Your task to perform on an android device: Go to sound settings Image 0: 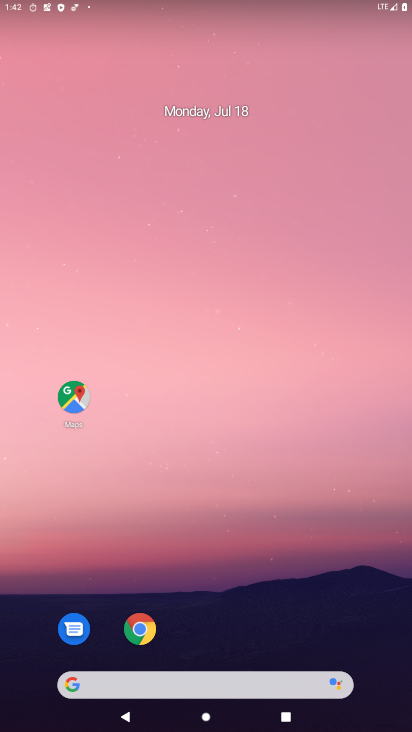
Step 0: press home button
Your task to perform on an android device: Go to sound settings Image 1: 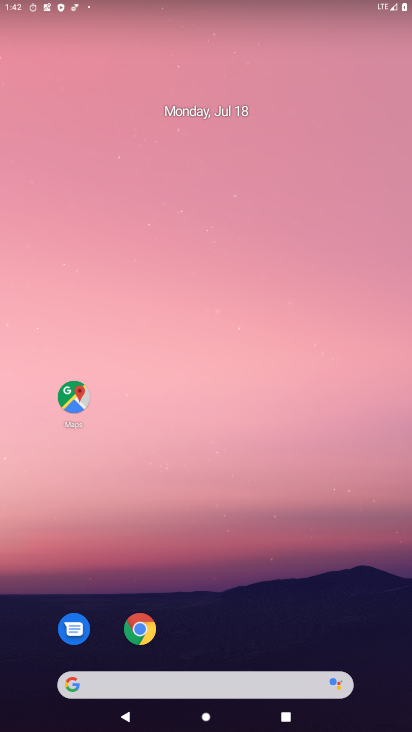
Step 1: drag from (218, 642) to (225, 19)
Your task to perform on an android device: Go to sound settings Image 2: 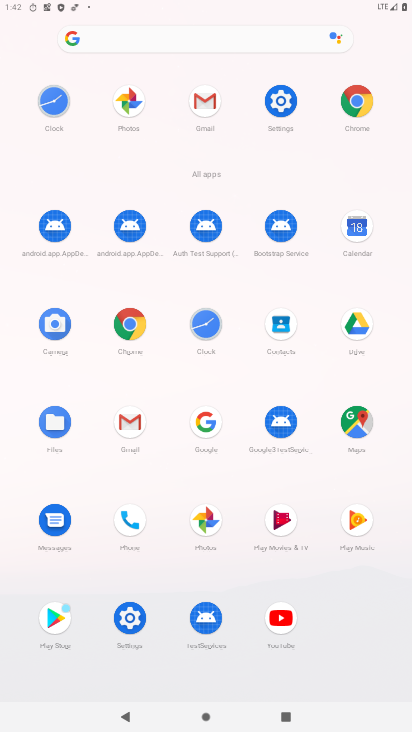
Step 2: click (280, 95)
Your task to perform on an android device: Go to sound settings Image 3: 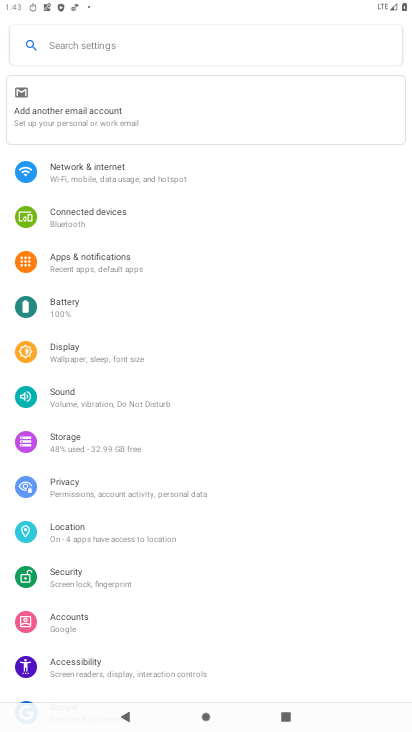
Step 3: click (63, 392)
Your task to perform on an android device: Go to sound settings Image 4: 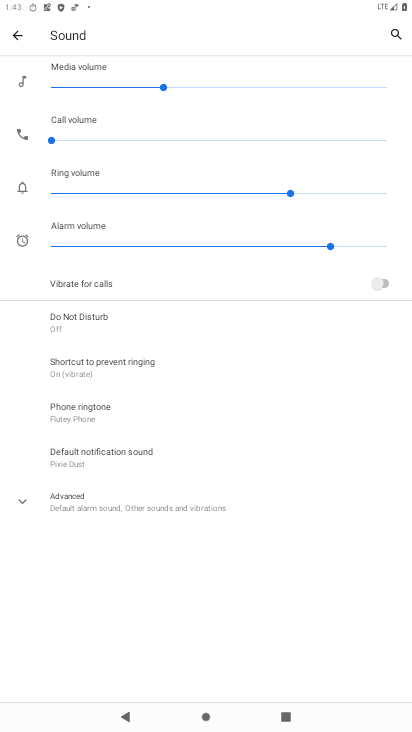
Step 4: click (23, 493)
Your task to perform on an android device: Go to sound settings Image 5: 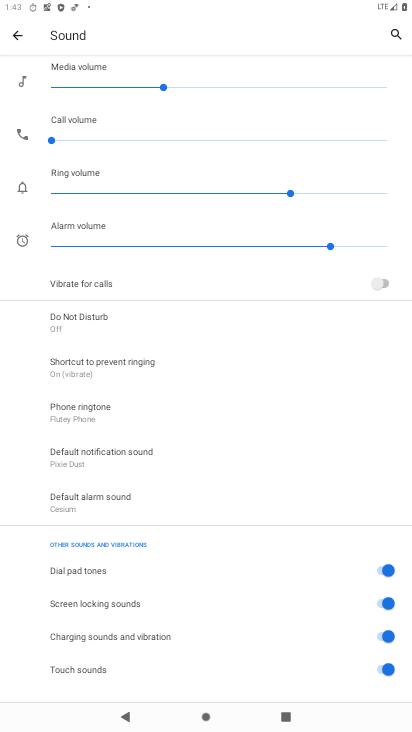
Step 5: task complete